Your task to perform on an android device: Open notification settings Image 0: 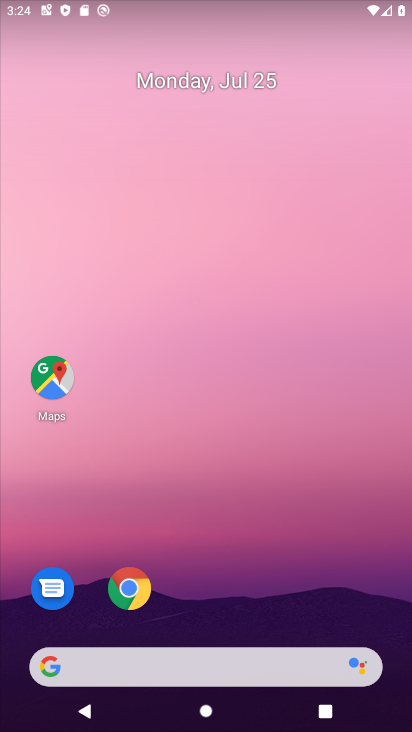
Step 0: drag from (286, 579) to (313, 183)
Your task to perform on an android device: Open notification settings Image 1: 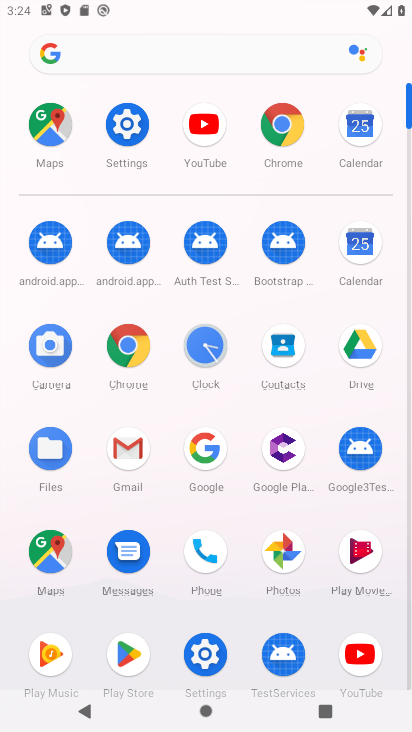
Step 1: click (138, 119)
Your task to perform on an android device: Open notification settings Image 2: 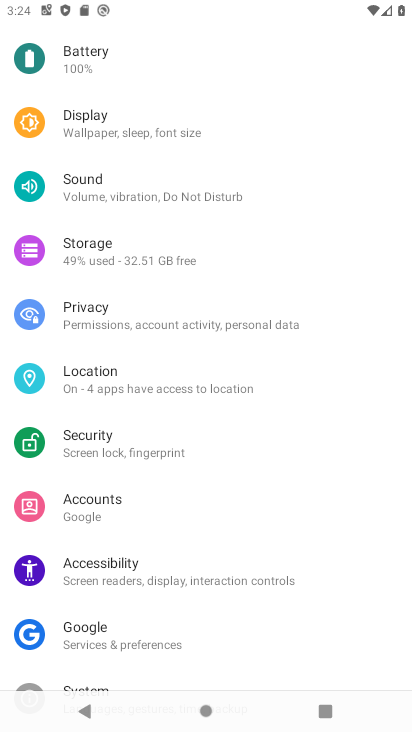
Step 2: drag from (123, 177) to (283, 585)
Your task to perform on an android device: Open notification settings Image 3: 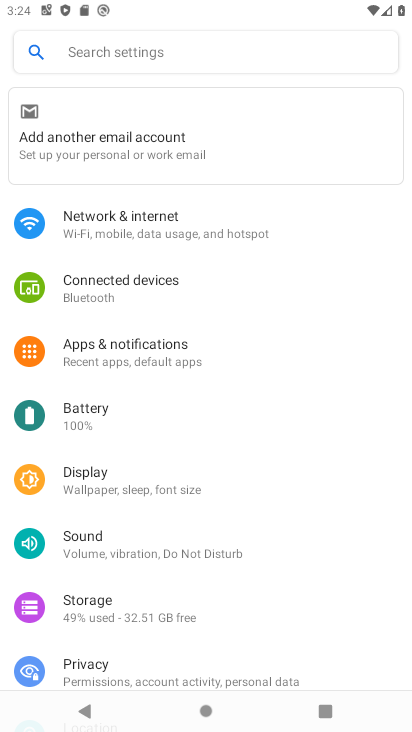
Step 3: click (146, 362)
Your task to perform on an android device: Open notification settings Image 4: 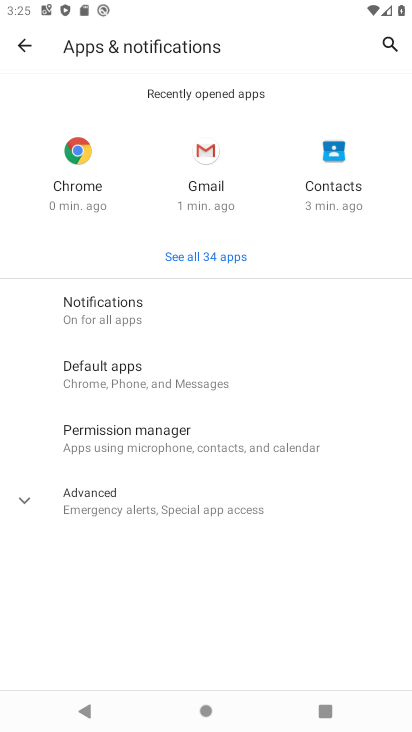
Step 4: task complete